Your task to perform on an android device: toggle priority inbox in the gmail app Image 0: 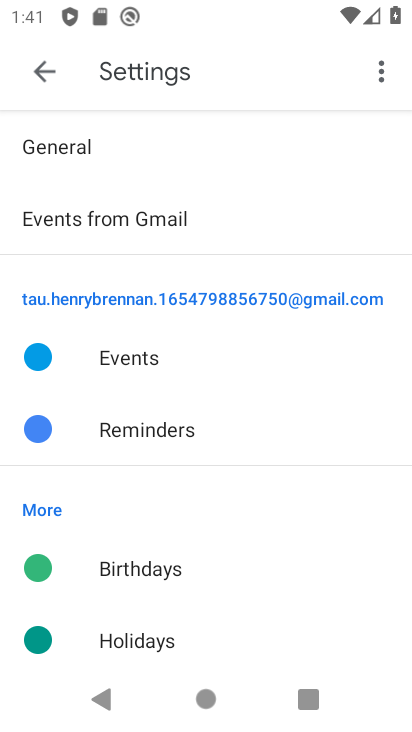
Step 0: press back button
Your task to perform on an android device: toggle priority inbox in the gmail app Image 1: 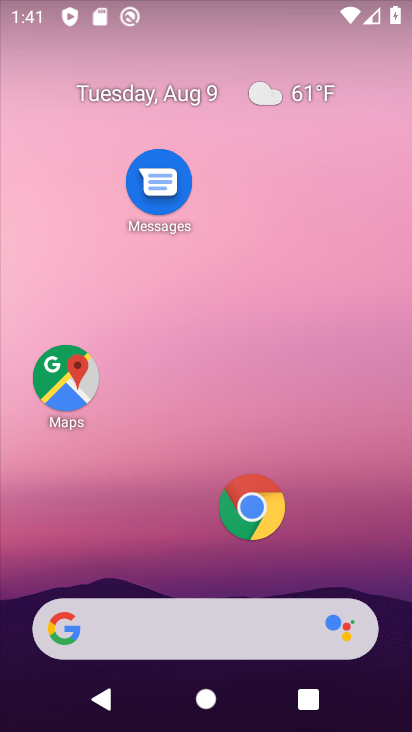
Step 1: drag from (160, 578) to (251, 45)
Your task to perform on an android device: toggle priority inbox in the gmail app Image 2: 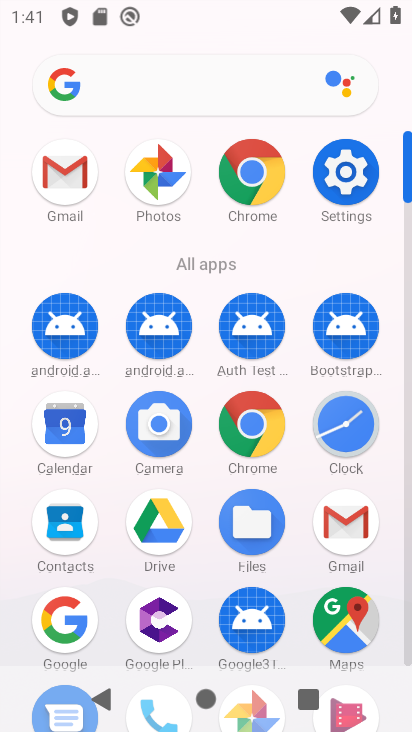
Step 2: click (46, 161)
Your task to perform on an android device: toggle priority inbox in the gmail app Image 3: 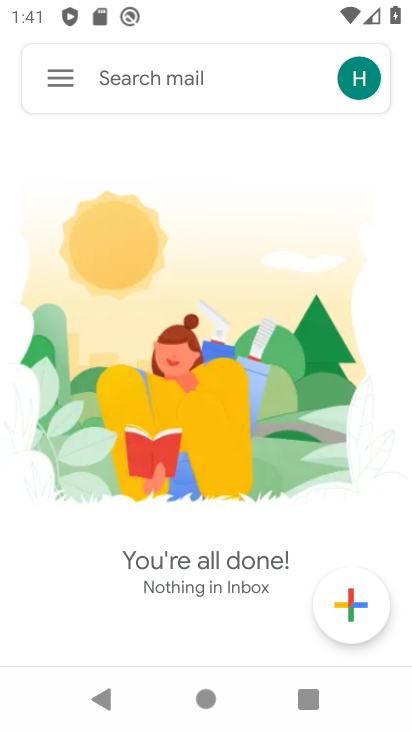
Step 3: click (49, 87)
Your task to perform on an android device: toggle priority inbox in the gmail app Image 4: 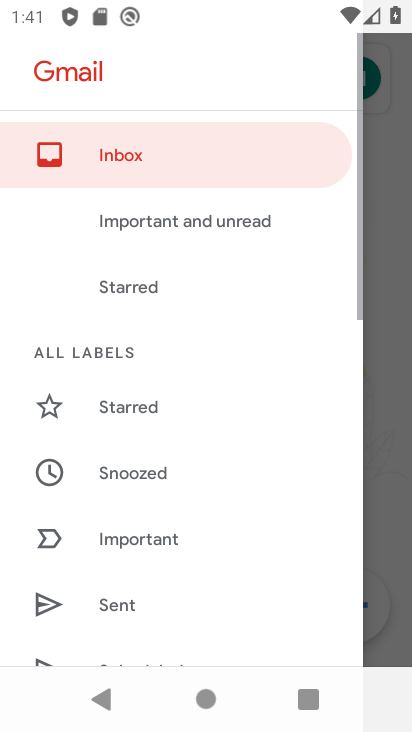
Step 4: drag from (185, 643) to (258, 40)
Your task to perform on an android device: toggle priority inbox in the gmail app Image 5: 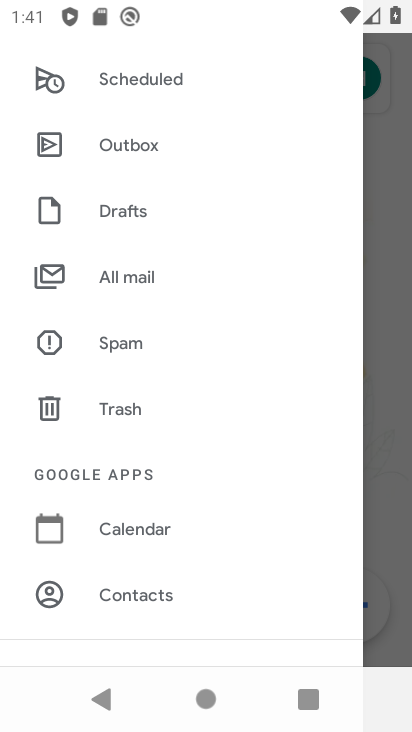
Step 5: drag from (89, 621) to (228, 72)
Your task to perform on an android device: toggle priority inbox in the gmail app Image 6: 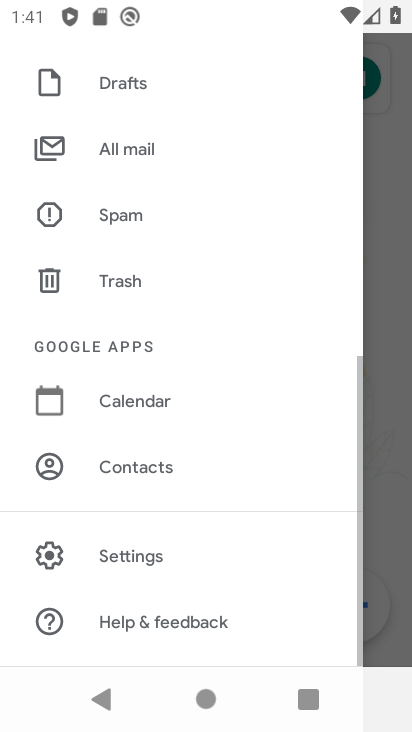
Step 6: click (170, 547)
Your task to perform on an android device: toggle priority inbox in the gmail app Image 7: 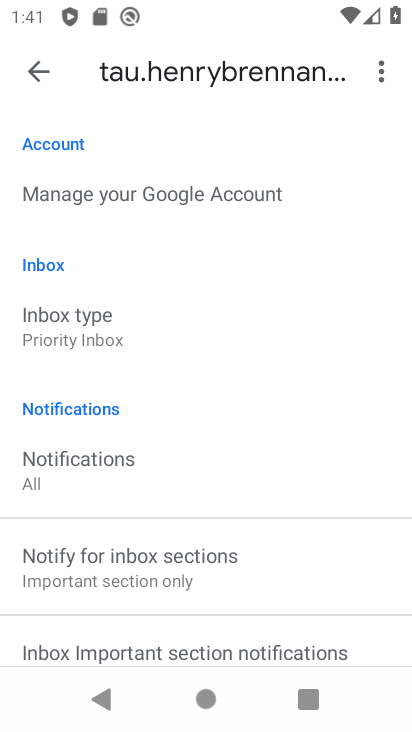
Step 7: click (67, 319)
Your task to perform on an android device: toggle priority inbox in the gmail app Image 8: 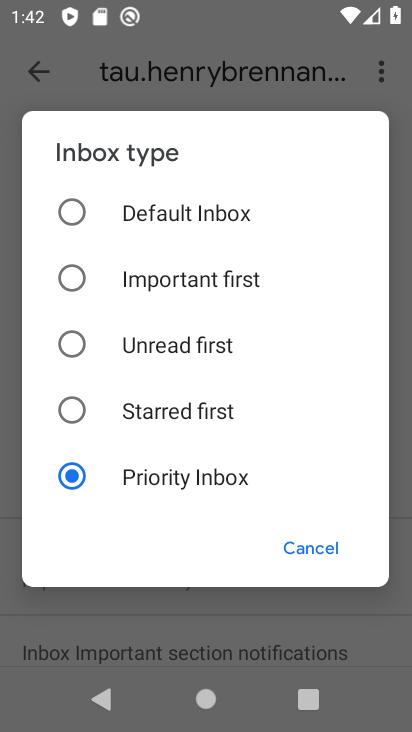
Step 8: click (90, 476)
Your task to perform on an android device: toggle priority inbox in the gmail app Image 9: 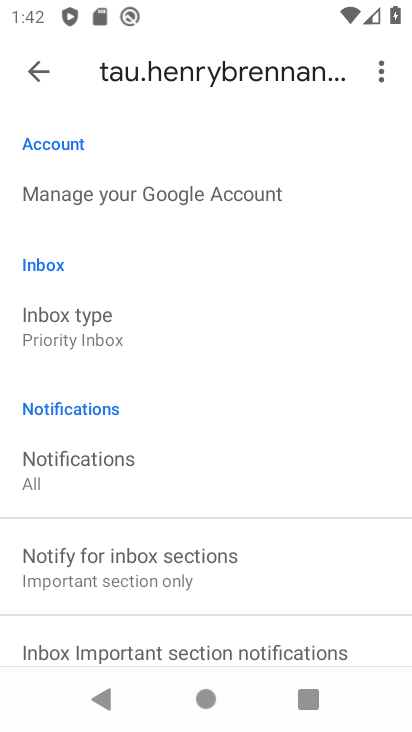
Step 9: task complete